Your task to perform on an android device: Go to location settings Image 0: 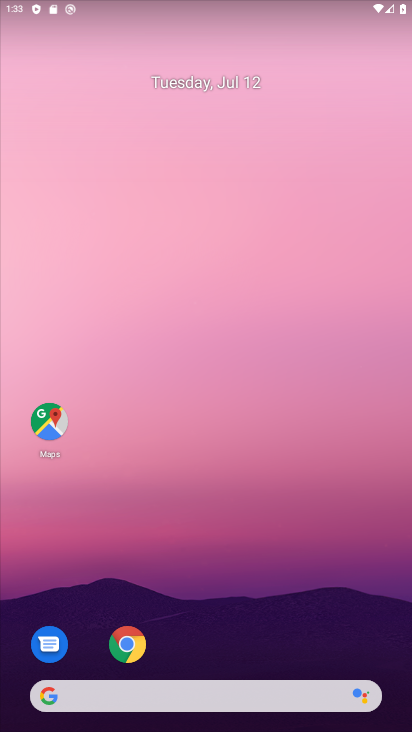
Step 0: drag from (210, 670) to (228, 80)
Your task to perform on an android device: Go to location settings Image 1: 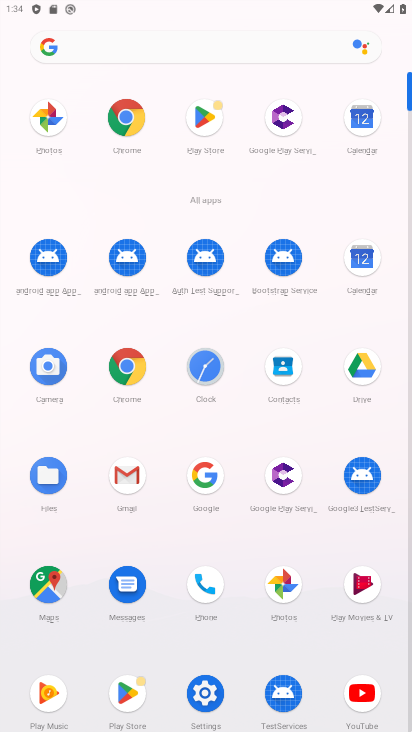
Step 1: click (214, 683)
Your task to perform on an android device: Go to location settings Image 2: 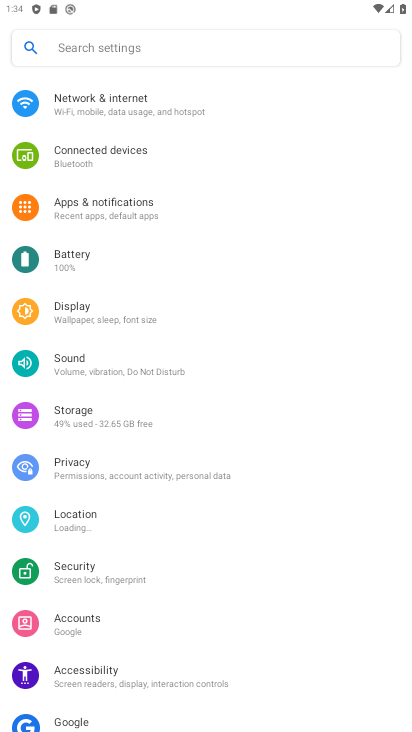
Step 2: drag from (212, 680) to (182, 490)
Your task to perform on an android device: Go to location settings Image 3: 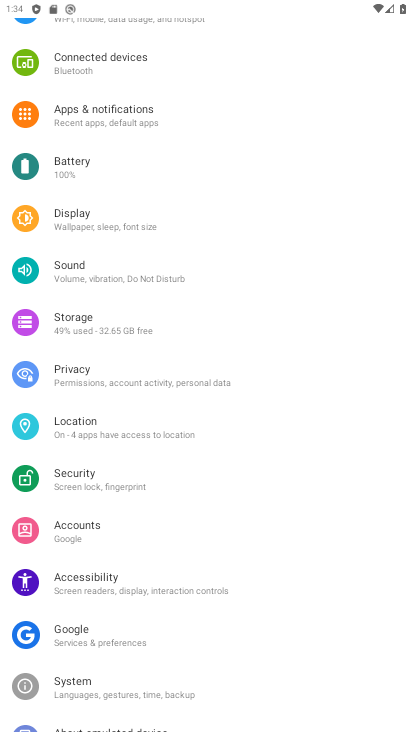
Step 3: click (39, 430)
Your task to perform on an android device: Go to location settings Image 4: 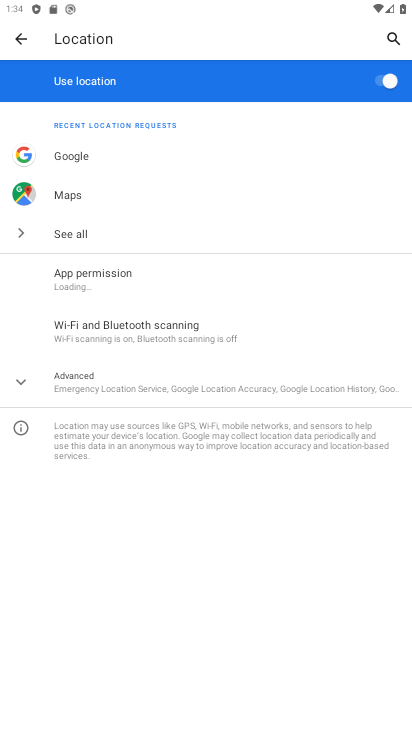
Step 4: click (114, 386)
Your task to perform on an android device: Go to location settings Image 5: 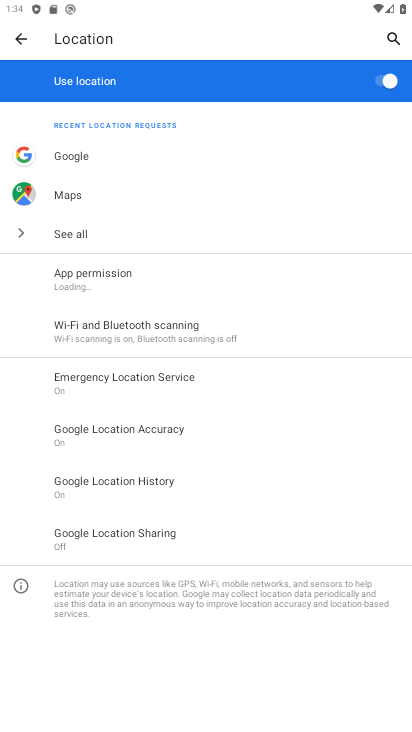
Step 5: task complete